Your task to perform on an android device: turn on wifi Image 0: 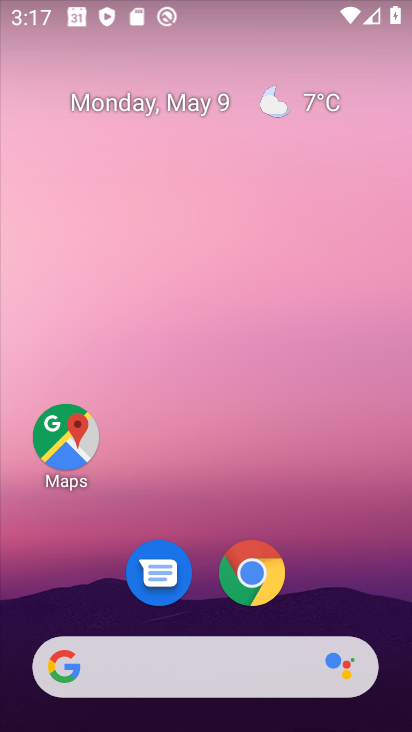
Step 0: click (289, 181)
Your task to perform on an android device: turn on wifi Image 1: 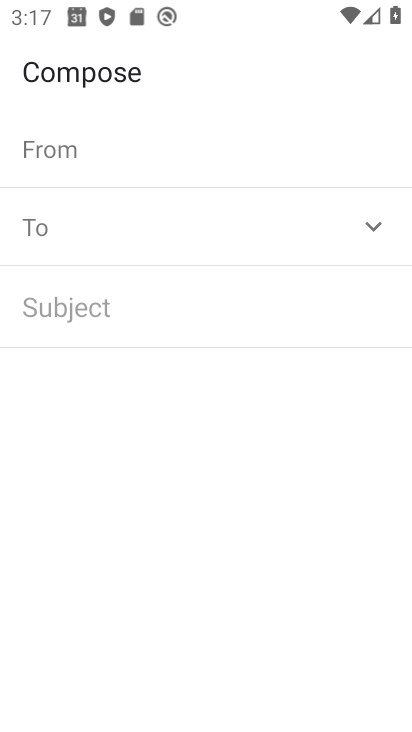
Step 1: drag from (249, 242) to (239, 189)
Your task to perform on an android device: turn on wifi Image 2: 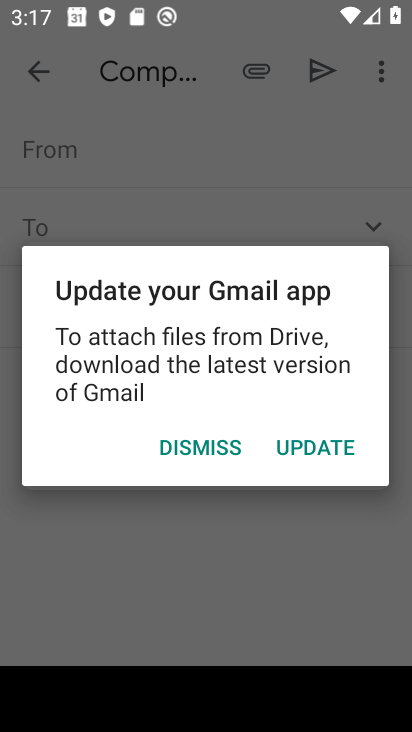
Step 2: click (303, 459)
Your task to perform on an android device: turn on wifi Image 3: 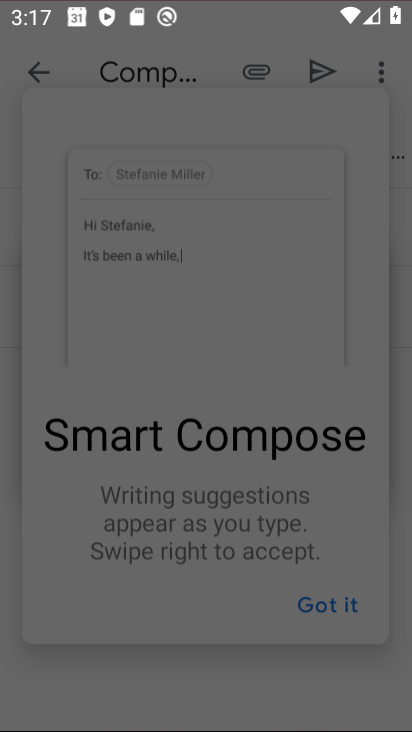
Step 3: press home button
Your task to perform on an android device: turn on wifi Image 4: 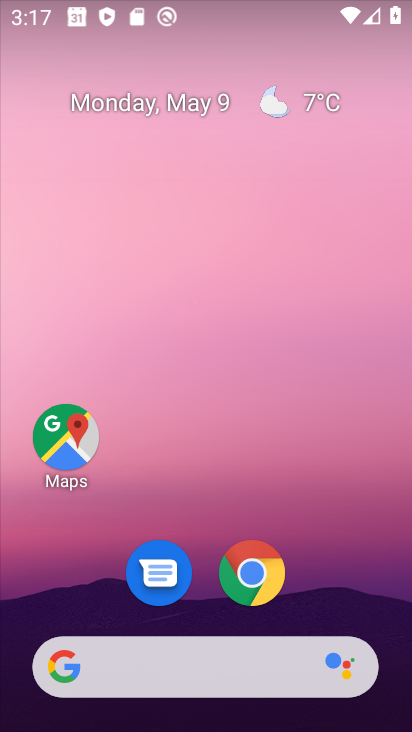
Step 4: drag from (299, 553) to (305, 240)
Your task to perform on an android device: turn on wifi Image 5: 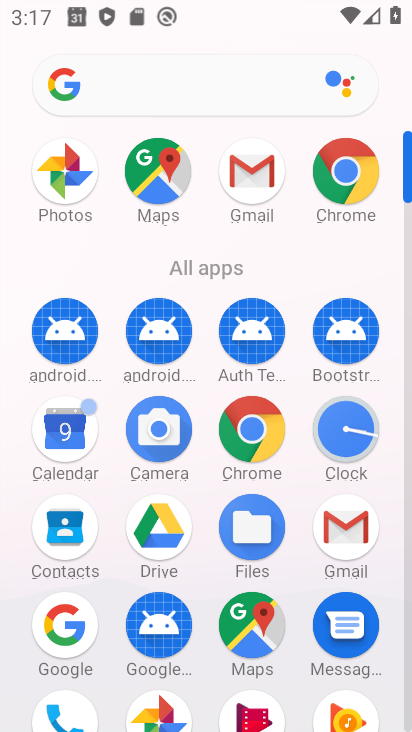
Step 5: drag from (211, 629) to (207, 198)
Your task to perform on an android device: turn on wifi Image 6: 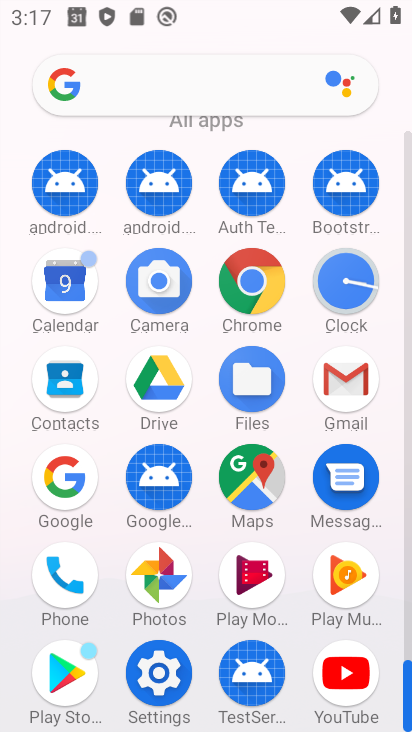
Step 6: click (140, 653)
Your task to perform on an android device: turn on wifi Image 7: 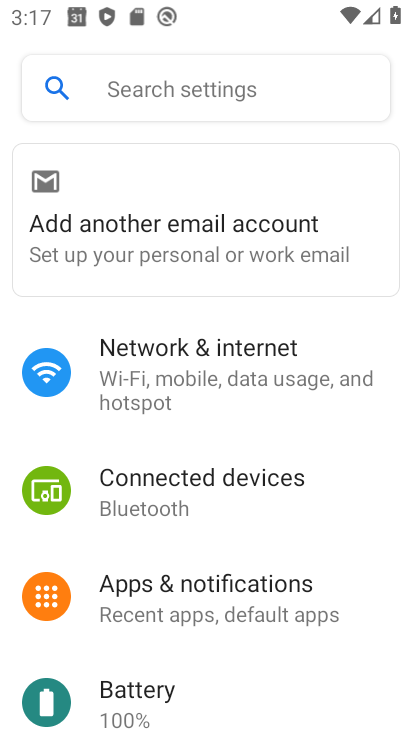
Step 7: click (171, 363)
Your task to perform on an android device: turn on wifi Image 8: 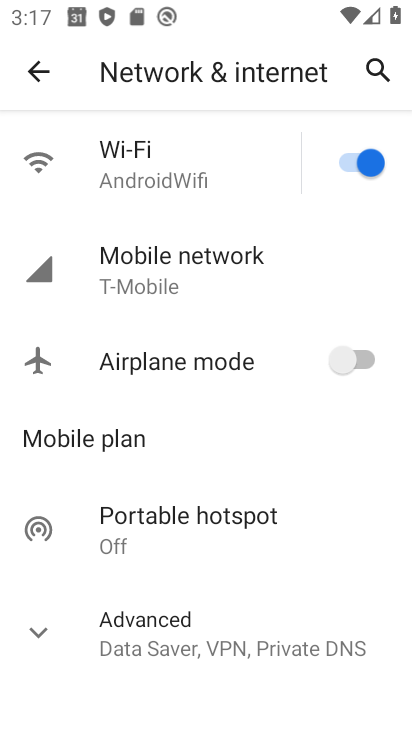
Step 8: task complete